Your task to perform on an android device: What's the weather? Image 0: 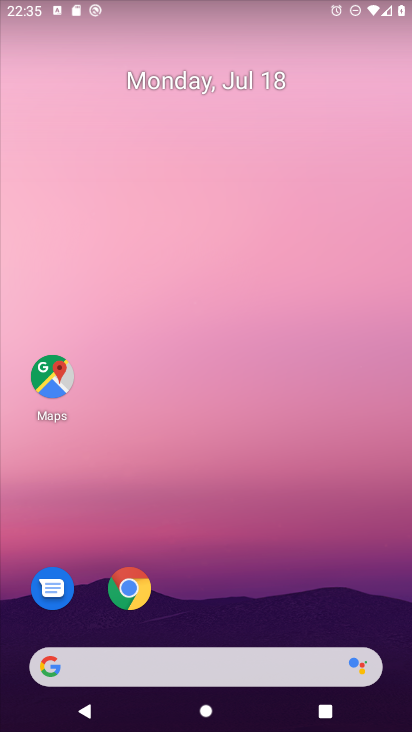
Step 0: drag from (5, 219) to (377, 231)
Your task to perform on an android device: What's the weather? Image 1: 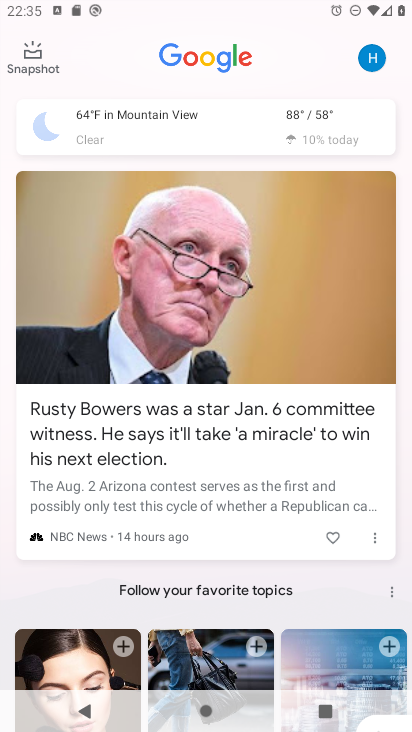
Step 1: click (306, 108)
Your task to perform on an android device: What's the weather? Image 2: 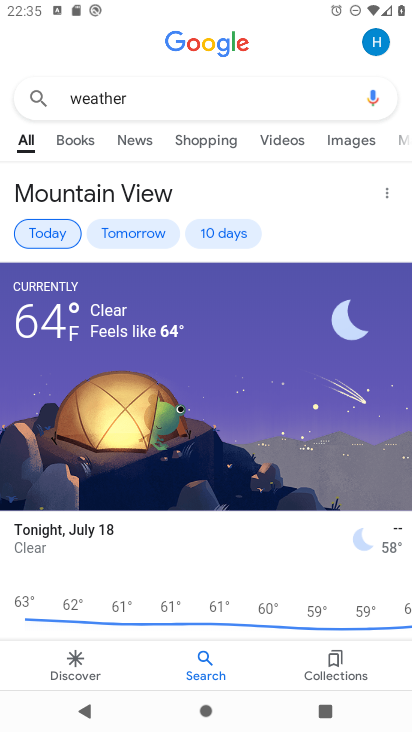
Step 2: task complete